Your task to perform on an android device: turn off sleep mode Image 0: 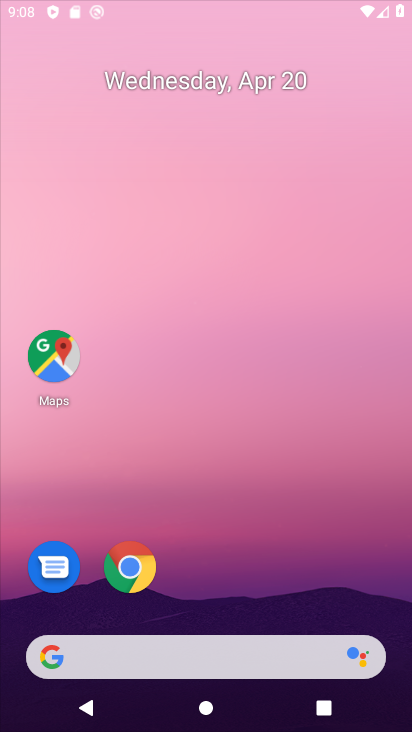
Step 0: click (126, 568)
Your task to perform on an android device: turn off sleep mode Image 1: 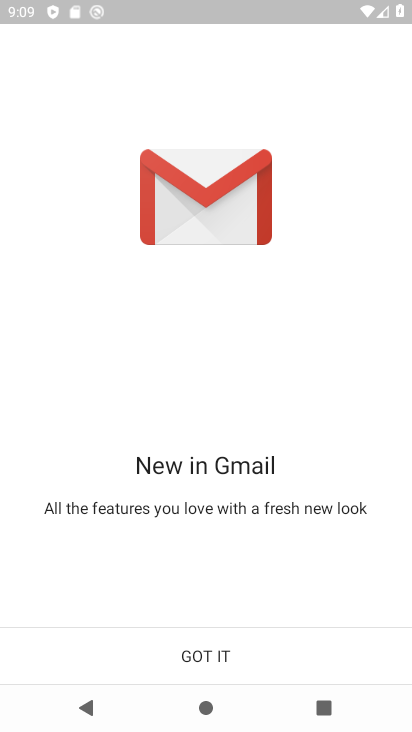
Step 1: press back button
Your task to perform on an android device: turn off sleep mode Image 2: 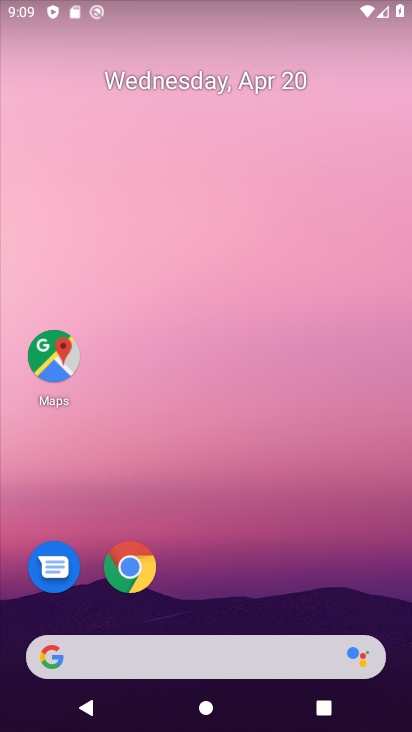
Step 2: drag from (239, 505) to (336, 26)
Your task to perform on an android device: turn off sleep mode Image 3: 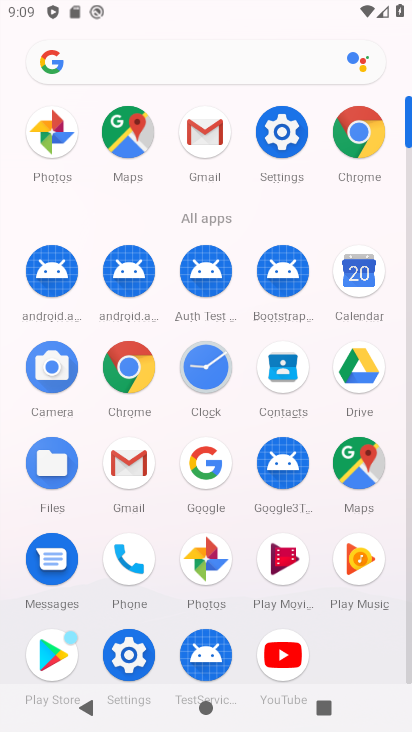
Step 3: click (281, 130)
Your task to perform on an android device: turn off sleep mode Image 4: 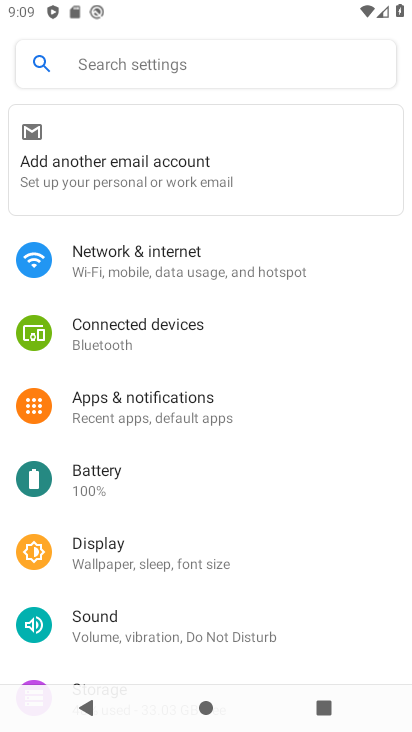
Step 4: click (166, 55)
Your task to perform on an android device: turn off sleep mode Image 5: 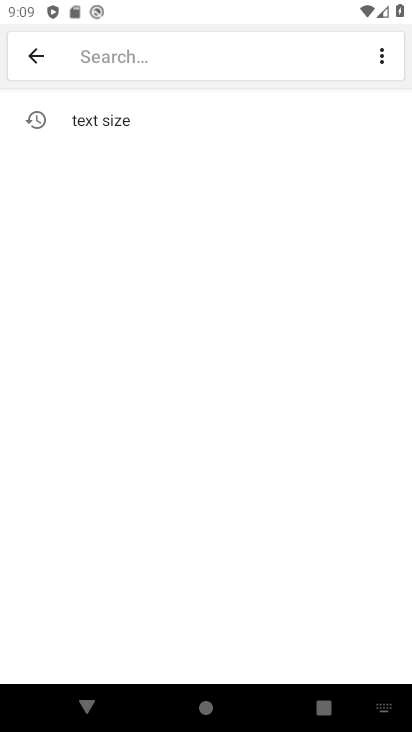
Step 5: type "sleep mode"
Your task to perform on an android device: turn off sleep mode Image 6: 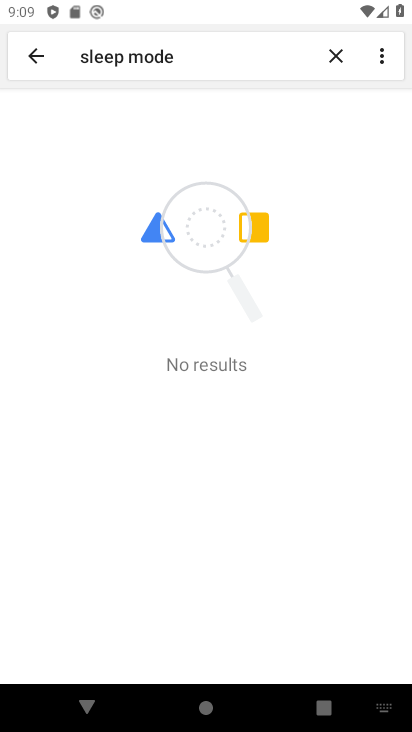
Step 6: task complete